Your task to perform on an android device: toggle improve location accuracy Image 0: 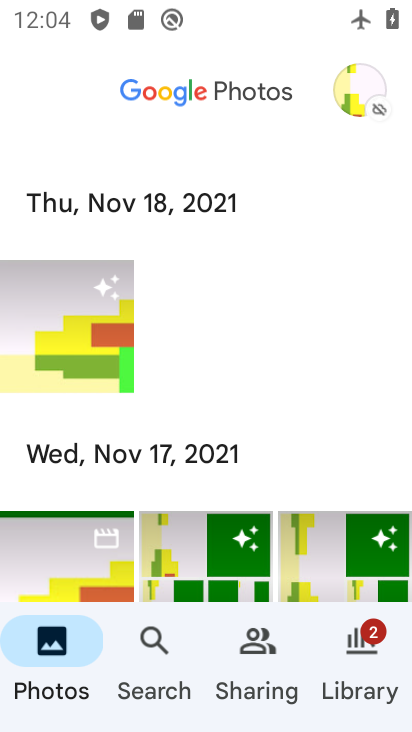
Step 0: press home button
Your task to perform on an android device: toggle improve location accuracy Image 1: 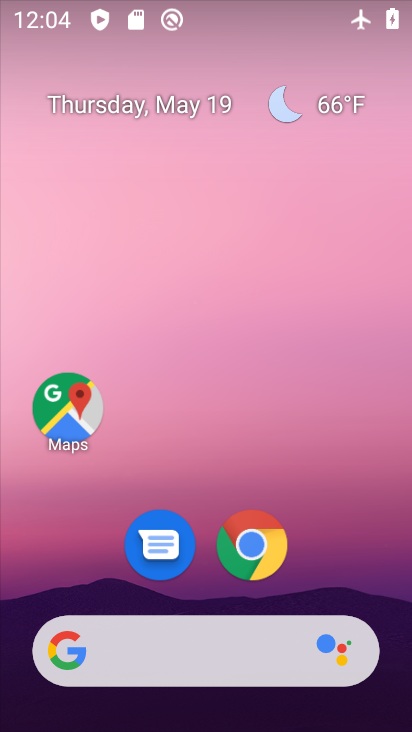
Step 1: click (88, 390)
Your task to perform on an android device: toggle improve location accuracy Image 2: 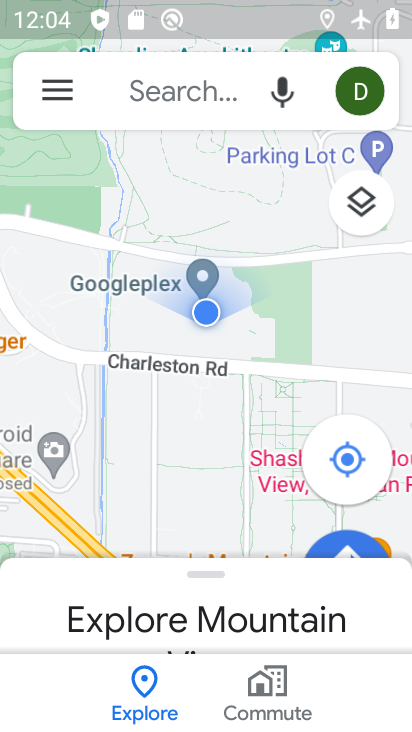
Step 2: click (47, 99)
Your task to perform on an android device: toggle improve location accuracy Image 3: 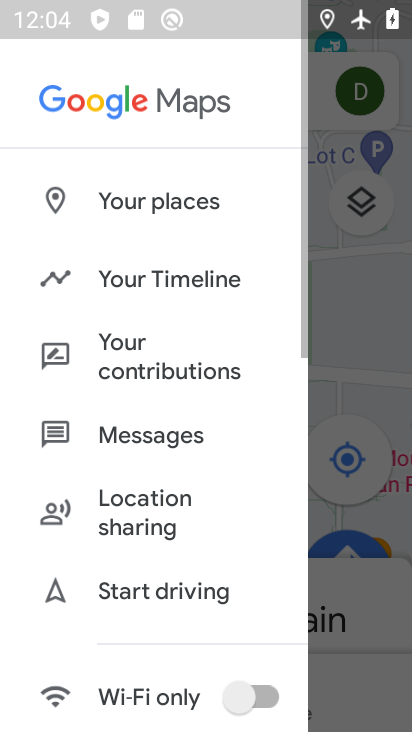
Step 3: drag from (139, 655) to (147, 13)
Your task to perform on an android device: toggle improve location accuracy Image 4: 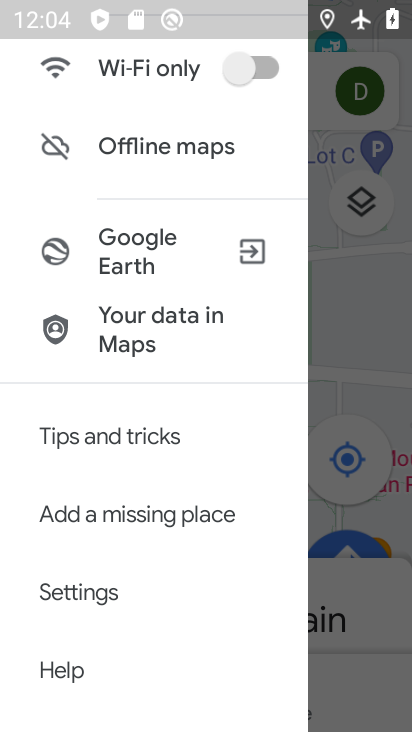
Step 4: click (105, 588)
Your task to perform on an android device: toggle improve location accuracy Image 5: 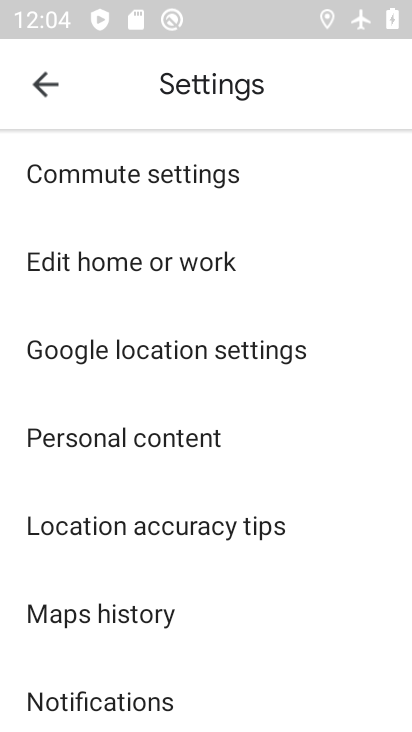
Step 5: click (207, 352)
Your task to perform on an android device: toggle improve location accuracy Image 6: 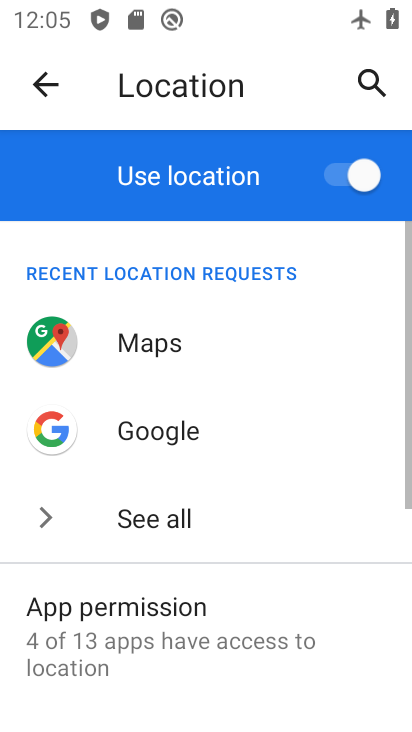
Step 6: drag from (305, 685) to (305, 211)
Your task to perform on an android device: toggle improve location accuracy Image 7: 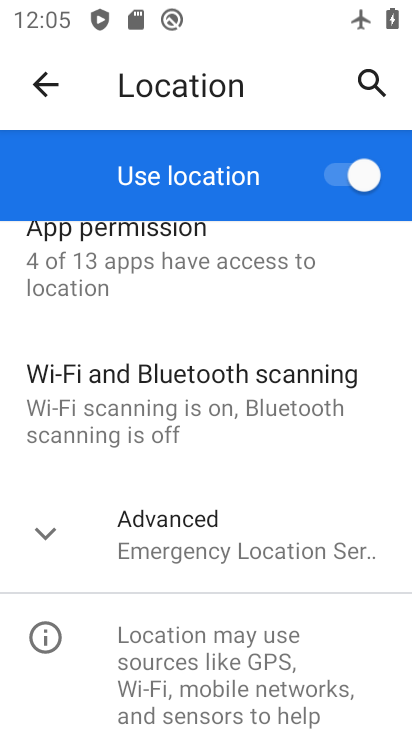
Step 7: click (222, 567)
Your task to perform on an android device: toggle improve location accuracy Image 8: 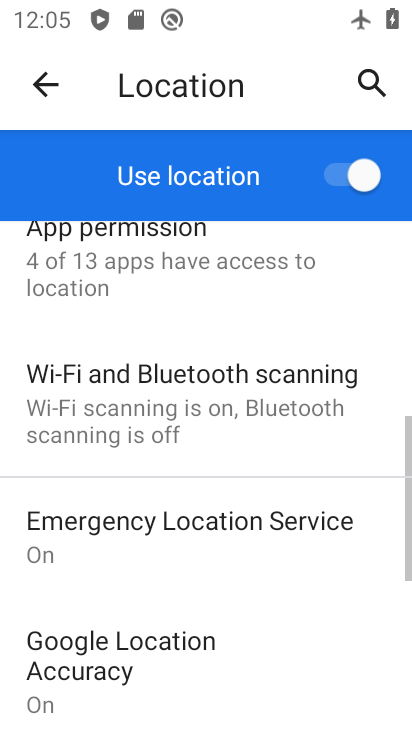
Step 8: click (141, 667)
Your task to perform on an android device: toggle improve location accuracy Image 9: 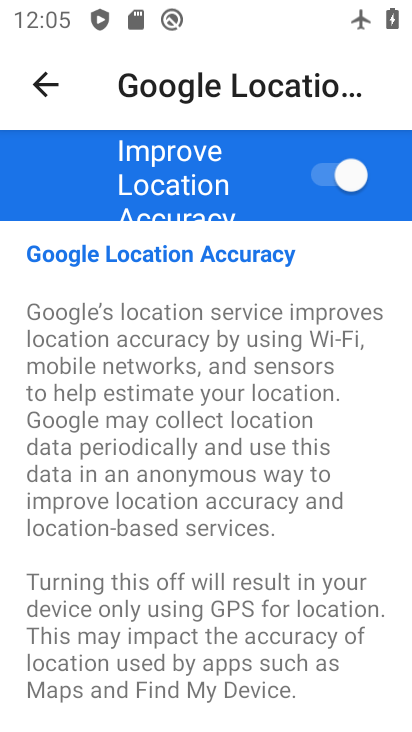
Step 9: click (347, 165)
Your task to perform on an android device: toggle improve location accuracy Image 10: 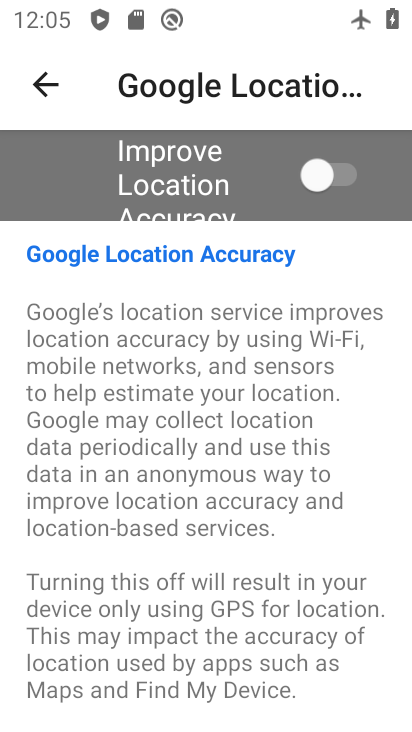
Step 10: task complete